Your task to perform on an android device: Open my contact list Image 0: 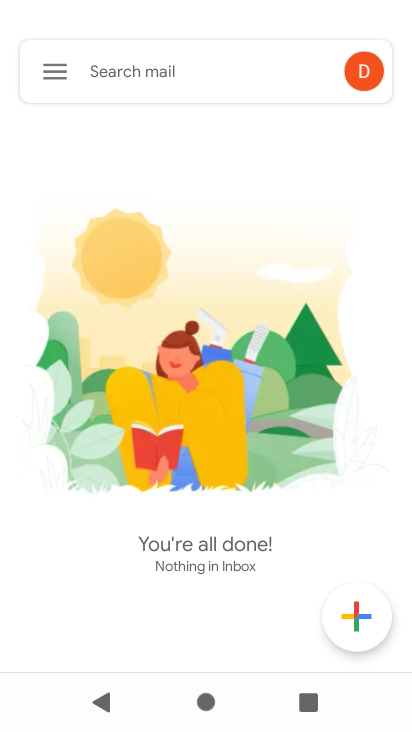
Step 0: press home button
Your task to perform on an android device: Open my contact list Image 1: 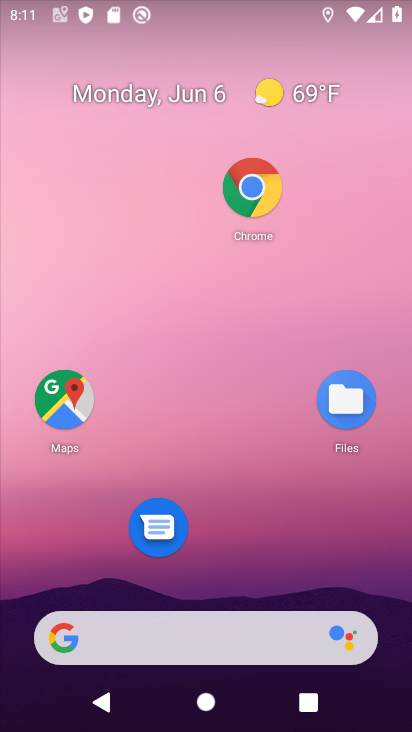
Step 1: drag from (260, 579) to (342, 166)
Your task to perform on an android device: Open my contact list Image 2: 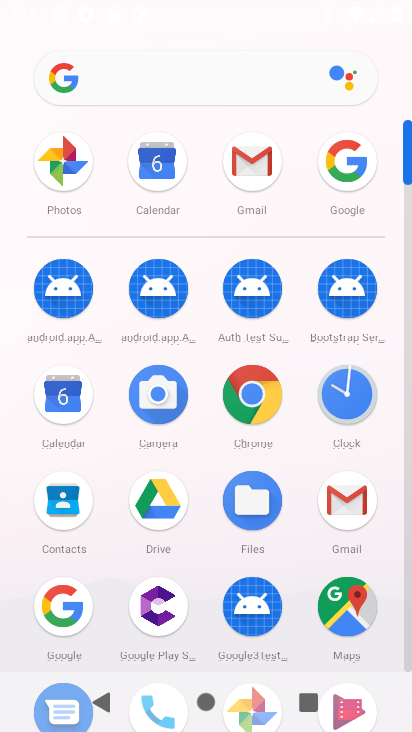
Step 2: click (62, 492)
Your task to perform on an android device: Open my contact list Image 3: 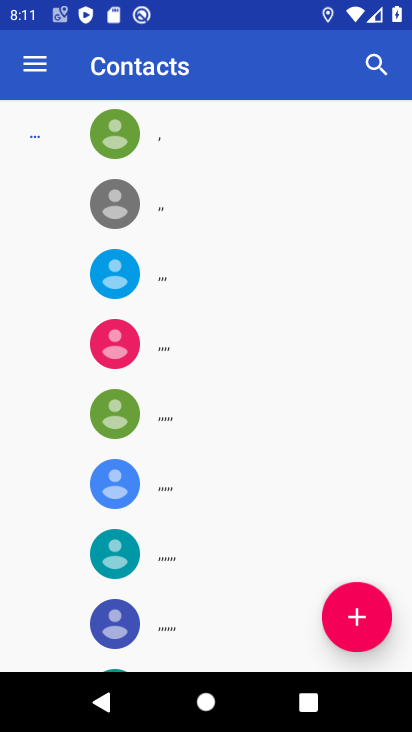
Step 3: task complete